Your task to perform on an android device: See recent photos Image 0: 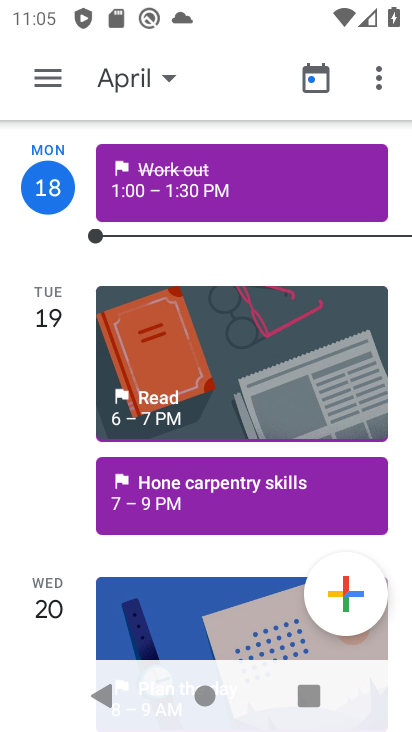
Step 0: press home button
Your task to perform on an android device: See recent photos Image 1: 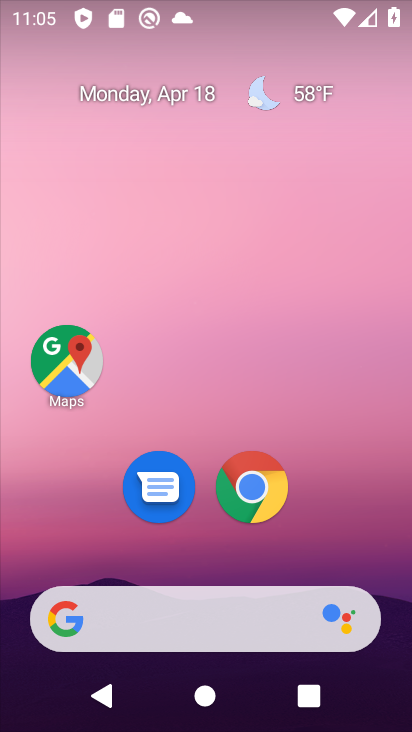
Step 1: drag from (305, 395) to (285, 138)
Your task to perform on an android device: See recent photos Image 2: 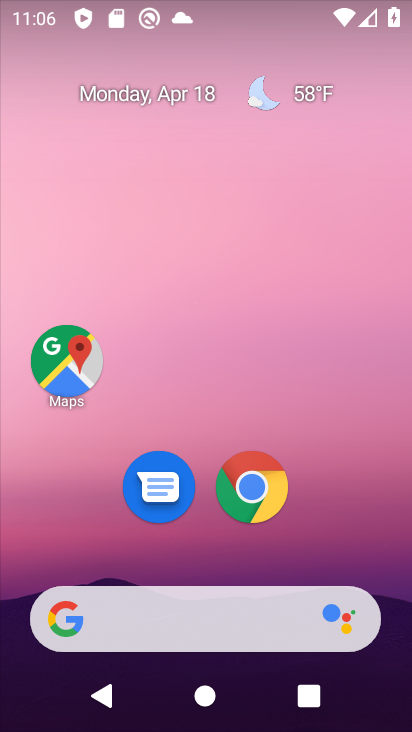
Step 2: drag from (324, 503) to (308, 152)
Your task to perform on an android device: See recent photos Image 3: 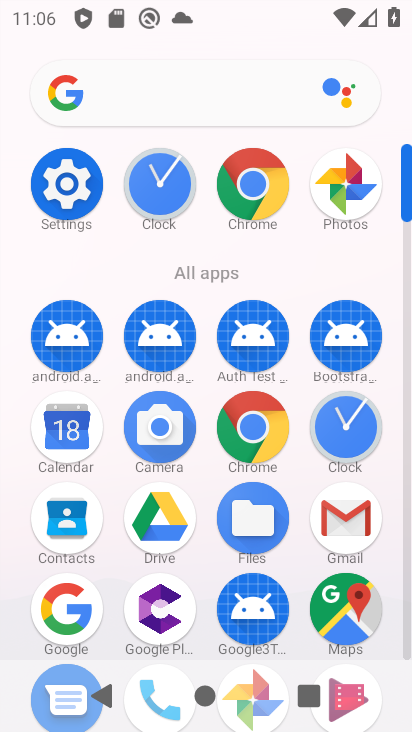
Step 3: click (318, 198)
Your task to perform on an android device: See recent photos Image 4: 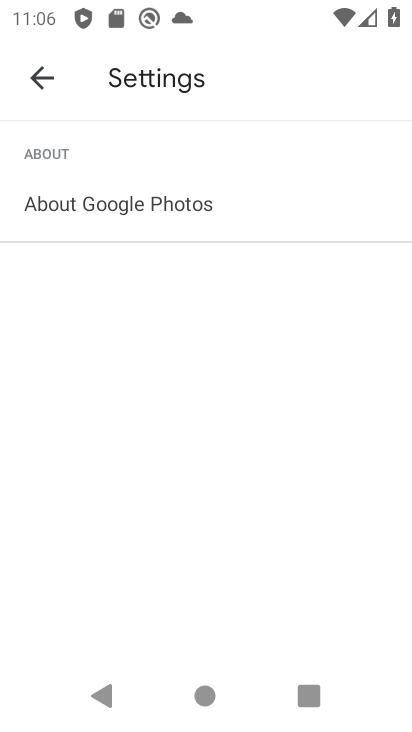
Step 4: click (33, 70)
Your task to perform on an android device: See recent photos Image 5: 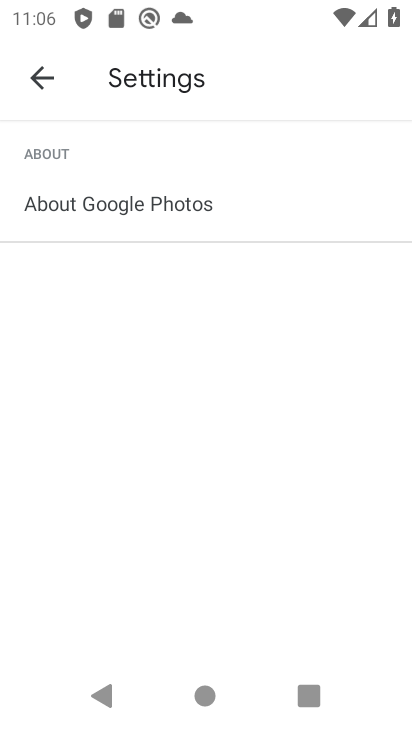
Step 5: click (33, 70)
Your task to perform on an android device: See recent photos Image 6: 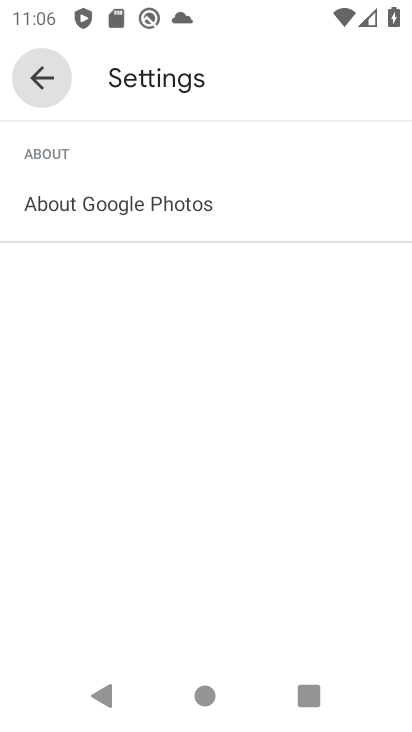
Step 6: click (33, 70)
Your task to perform on an android device: See recent photos Image 7: 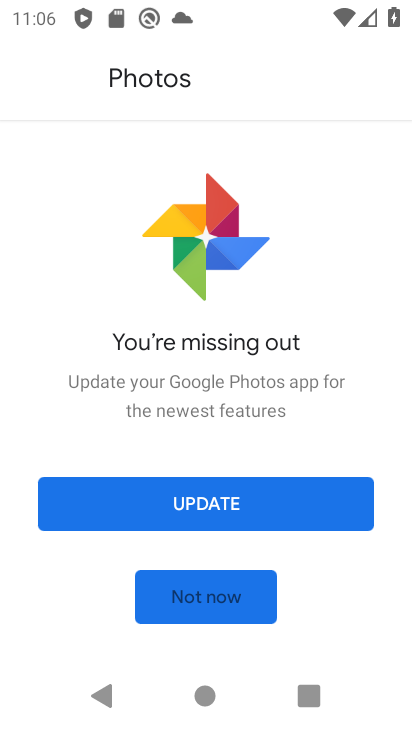
Step 7: click (220, 509)
Your task to perform on an android device: See recent photos Image 8: 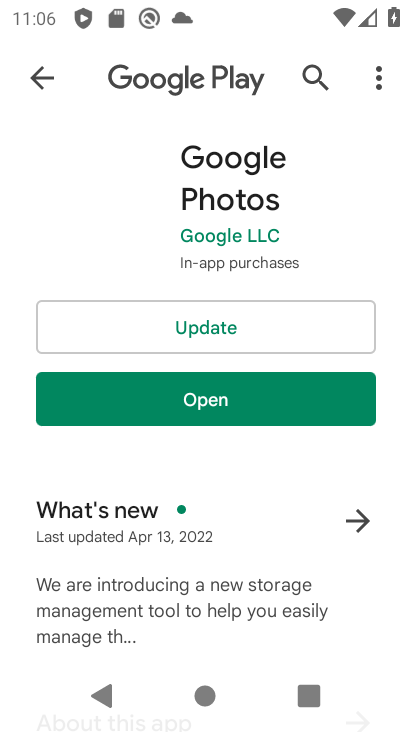
Step 8: click (220, 509)
Your task to perform on an android device: See recent photos Image 9: 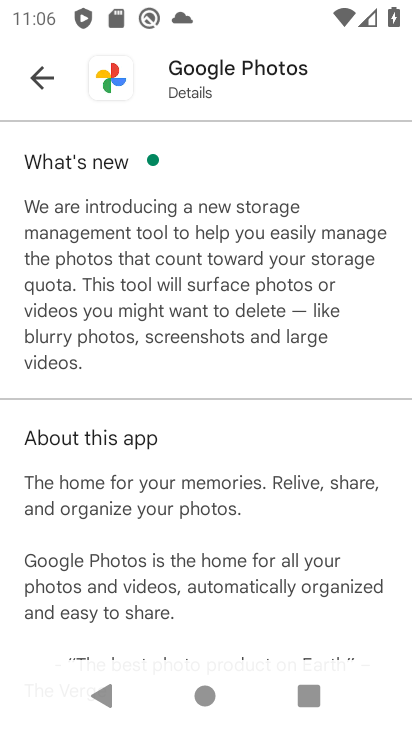
Step 9: click (50, 72)
Your task to perform on an android device: See recent photos Image 10: 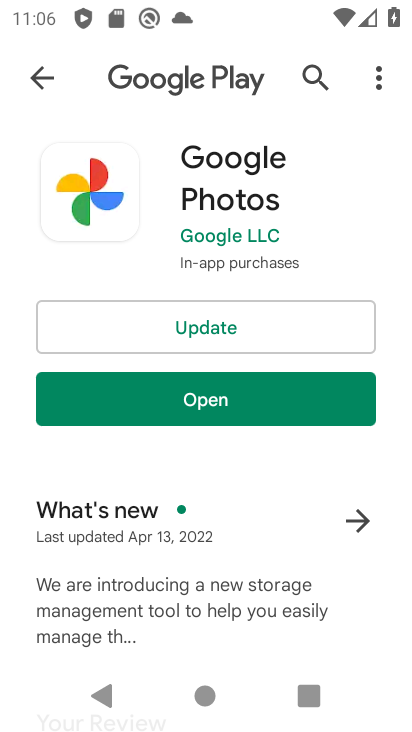
Step 10: click (173, 316)
Your task to perform on an android device: See recent photos Image 11: 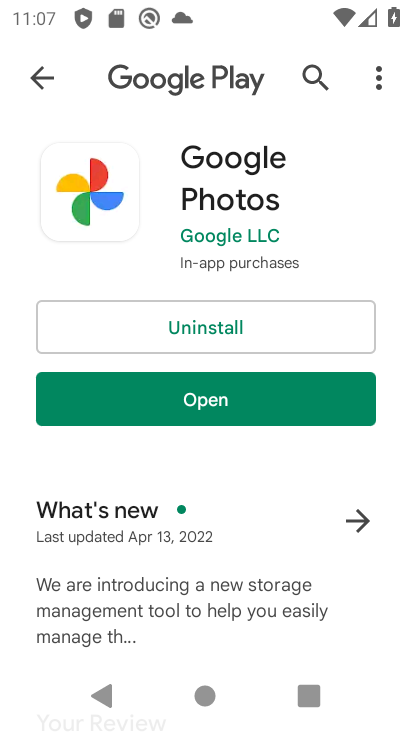
Step 11: click (201, 413)
Your task to perform on an android device: See recent photos Image 12: 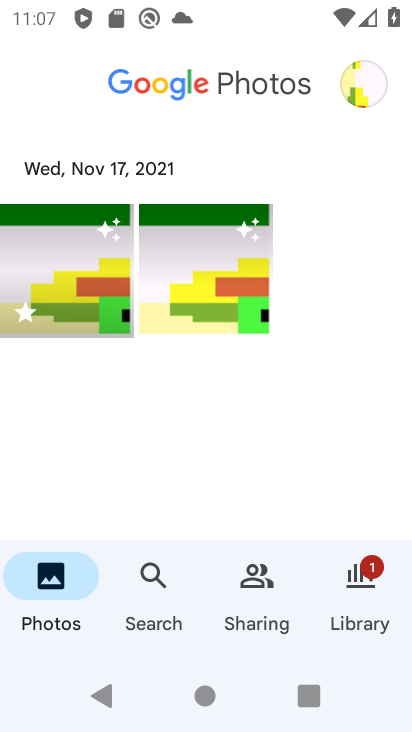
Step 12: click (96, 293)
Your task to perform on an android device: See recent photos Image 13: 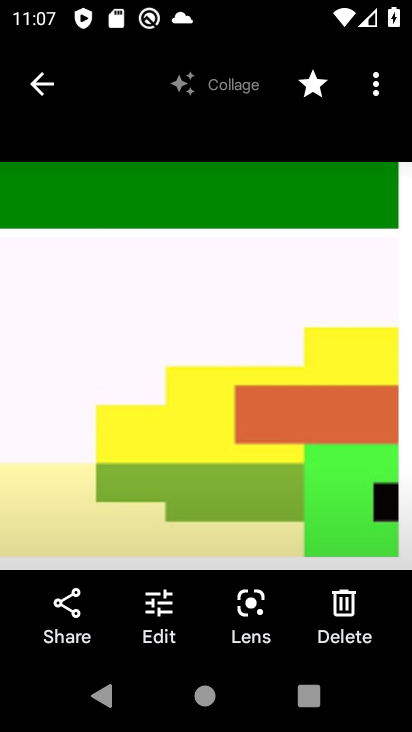
Step 13: task complete